Your task to perform on an android device: Go to Android settings Image 0: 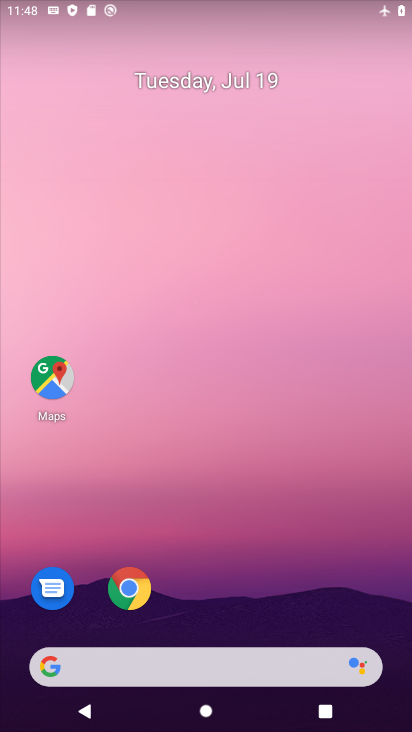
Step 0: drag from (289, 545) to (261, 227)
Your task to perform on an android device: Go to Android settings Image 1: 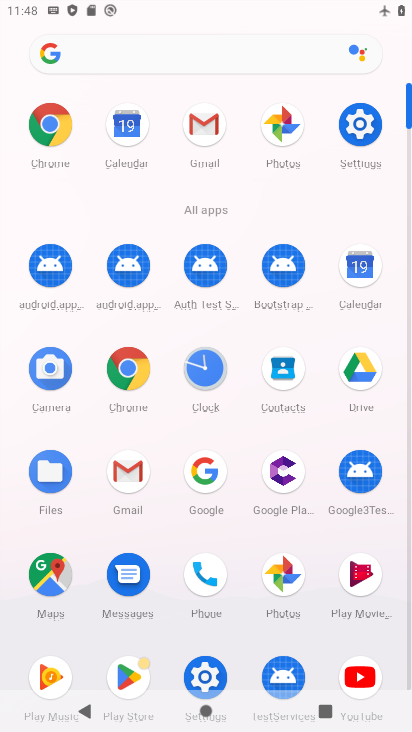
Step 1: click (352, 118)
Your task to perform on an android device: Go to Android settings Image 2: 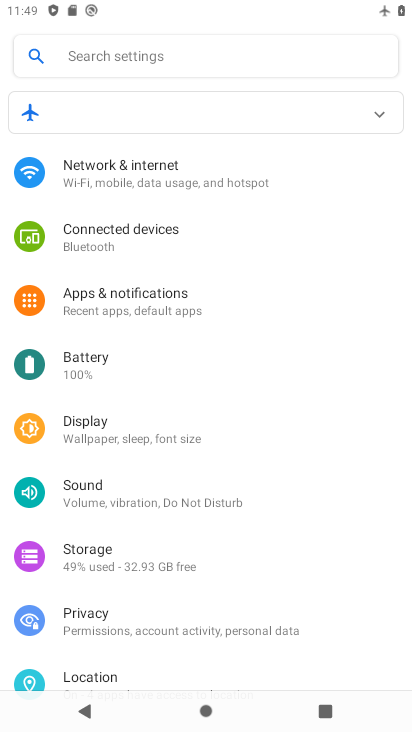
Step 2: task complete